Your task to perform on an android device: What's on my calendar today? Image 0: 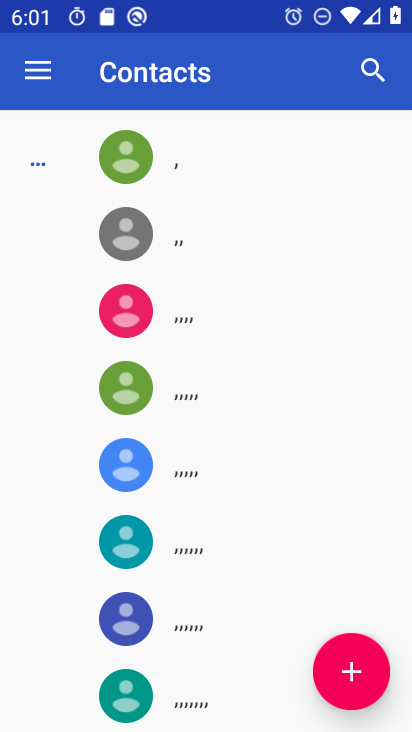
Step 0: drag from (242, 580) to (247, 291)
Your task to perform on an android device: What's on my calendar today? Image 1: 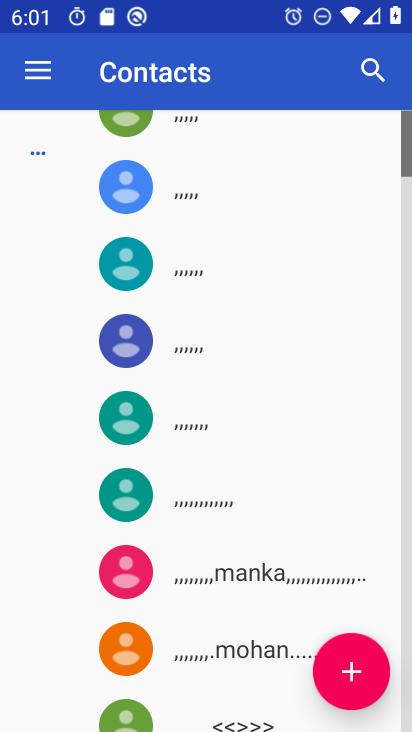
Step 1: press home button
Your task to perform on an android device: What's on my calendar today? Image 2: 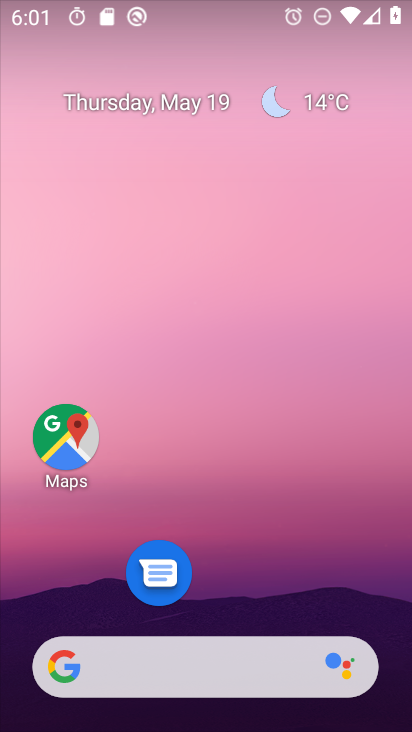
Step 2: drag from (238, 605) to (212, 117)
Your task to perform on an android device: What's on my calendar today? Image 3: 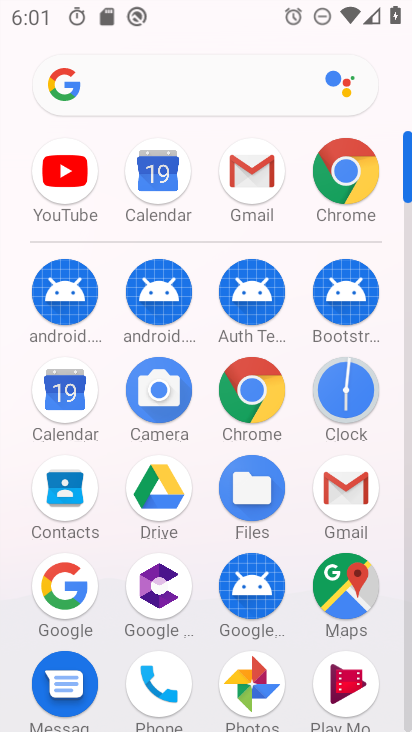
Step 3: click (61, 430)
Your task to perform on an android device: What's on my calendar today? Image 4: 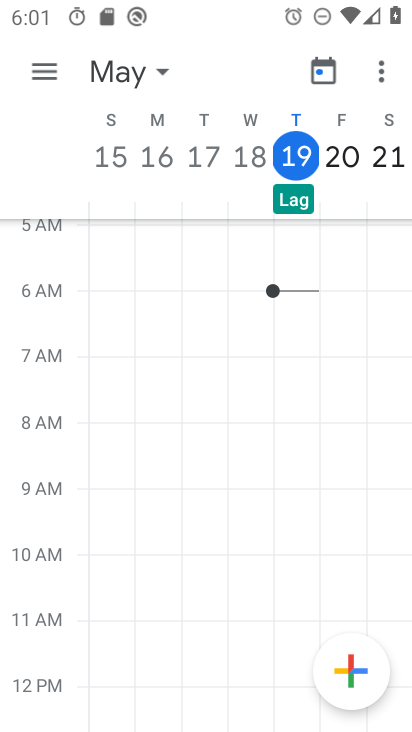
Step 4: click (48, 74)
Your task to perform on an android device: What's on my calendar today? Image 5: 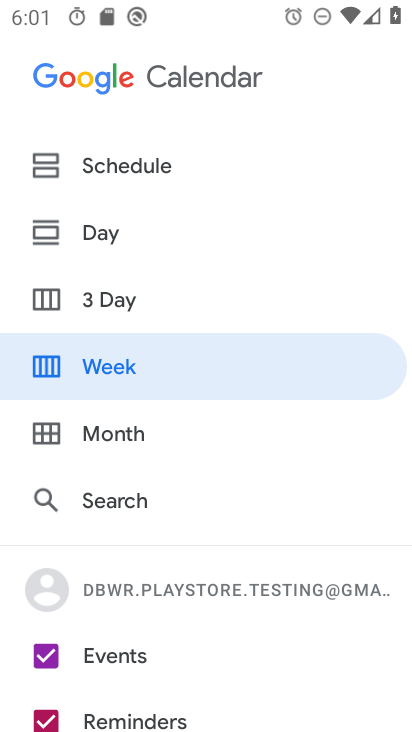
Step 5: click (126, 163)
Your task to perform on an android device: What's on my calendar today? Image 6: 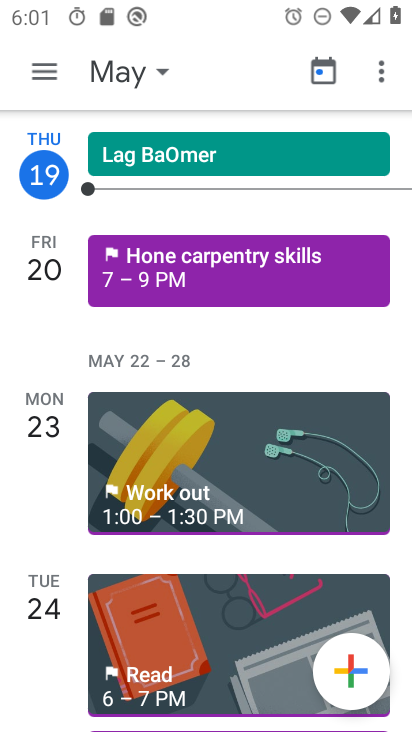
Step 6: task complete